Your task to perform on an android device: empty trash in the gmail app Image 0: 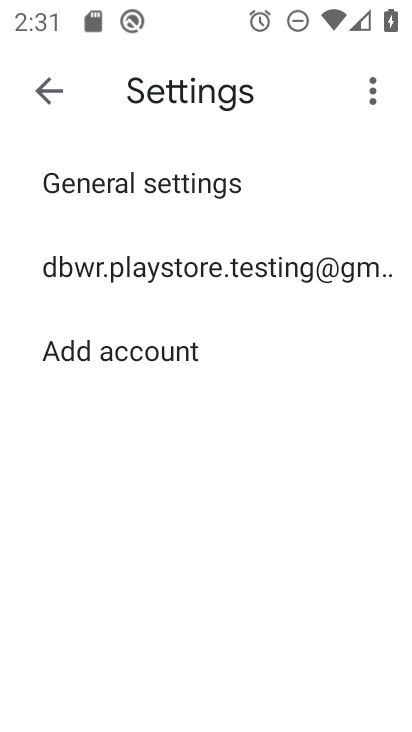
Step 0: press home button
Your task to perform on an android device: empty trash in the gmail app Image 1: 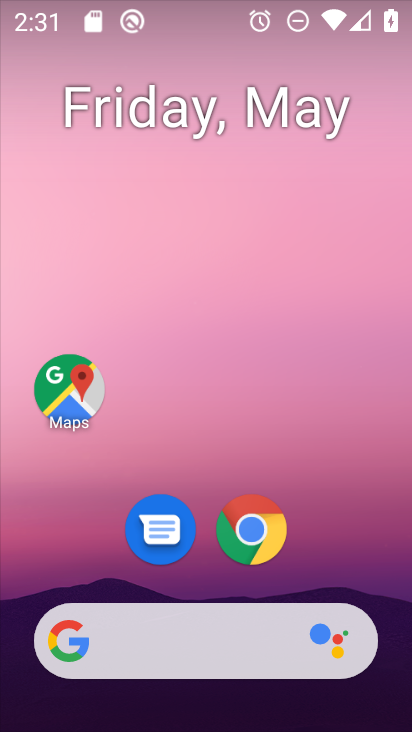
Step 1: drag from (375, 640) to (288, 233)
Your task to perform on an android device: empty trash in the gmail app Image 2: 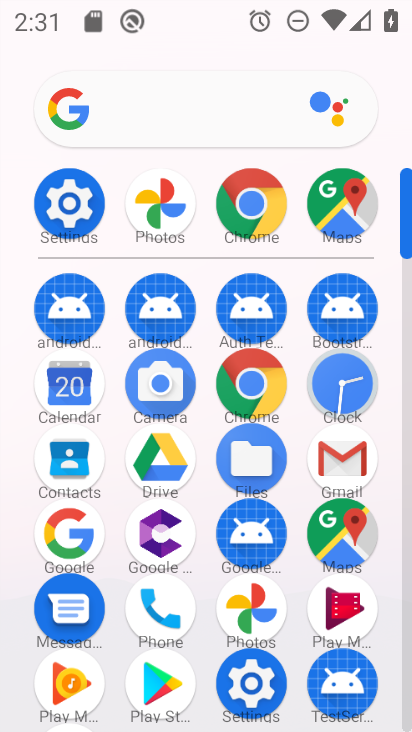
Step 2: click (356, 455)
Your task to perform on an android device: empty trash in the gmail app Image 3: 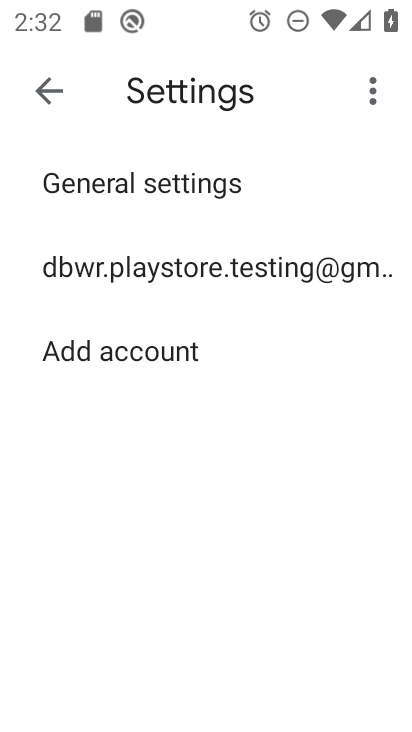
Step 3: click (111, 268)
Your task to perform on an android device: empty trash in the gmail app Image 4: 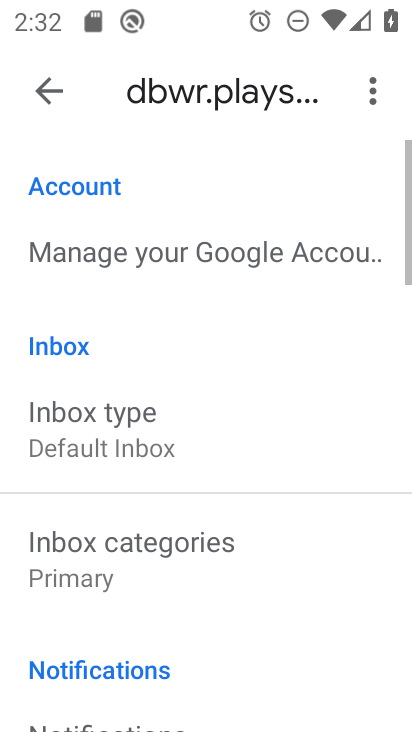
Step 4: click (49, 94)
Your task to perform on an android device: empty trash in the gmail app Image 5: 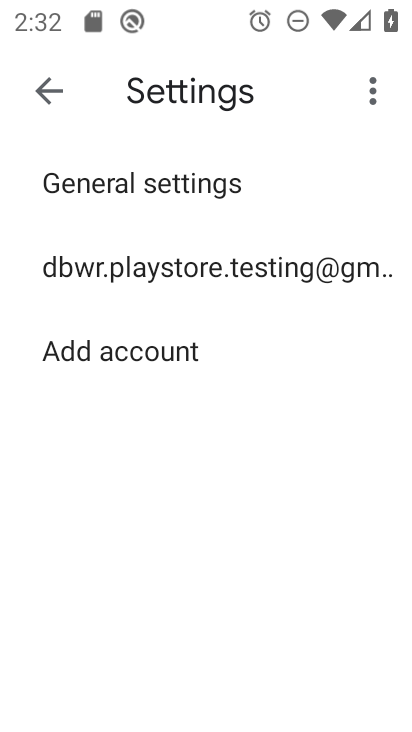
Step 5: click (49, 94)
Your task to perform on an android device: empty trash in the gmail app Image 6: 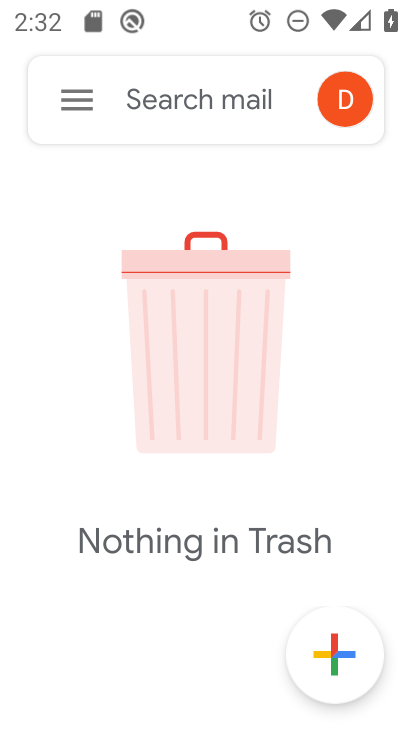
Step 6: click (72, 106)
Your task to perform on an android device: empty trash in the gmail app Image 7: 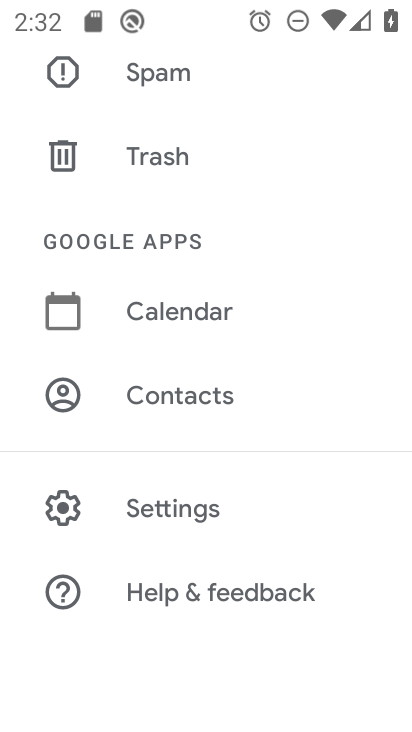
Step 7: click (159, 152)
Your task to perform on an android device: empty trash in the gmail app Image 8: 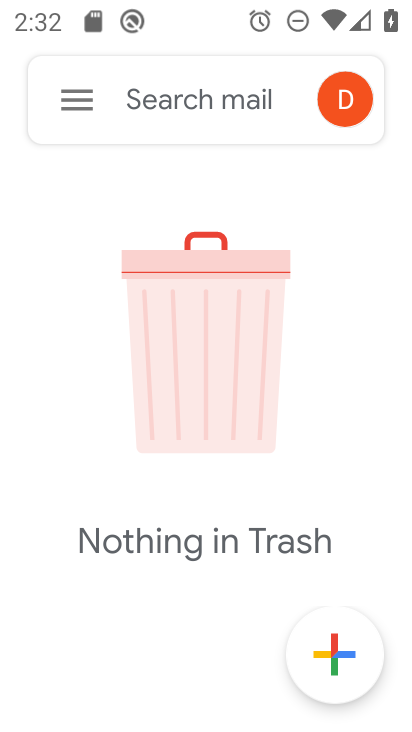
Step 8: task complete